Your task to perform on an android device: turn on improve location accuracy Image 0: 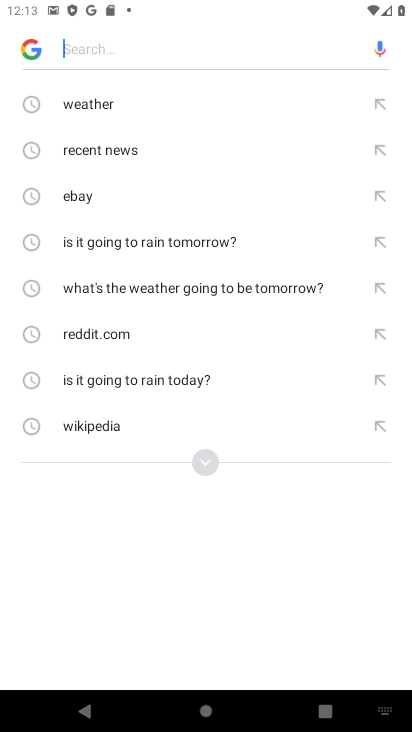
Step 0: press home button
Your task to perform on an android device: turn on improve location accuracy Image 1: 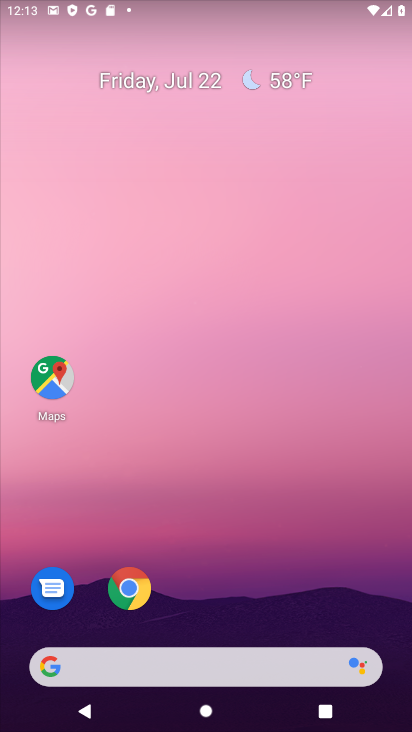
Step 1: drag from (235, 588) to (171, 7)
Your task to perform on an android device: turn on improve location accuracy Image 2: 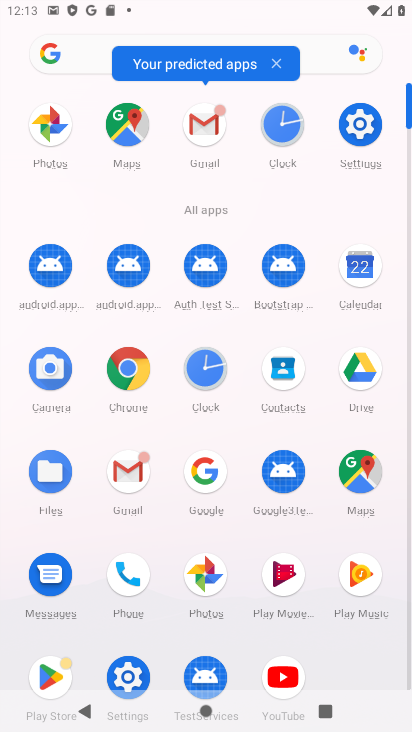
Step 2: click (368, 114)
Your task to perform on an android device: turn on improve location accuracy Image 3: 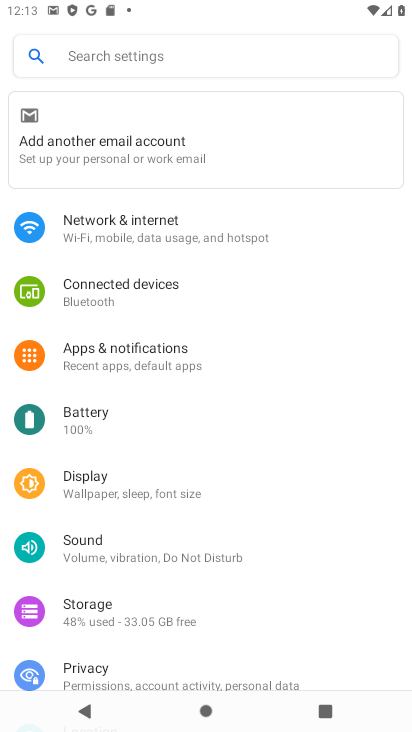
Step 3: drag from (142, 620) to (146, 274)
Your task to perform on an android device: turn on improve location accuracy Image 4: 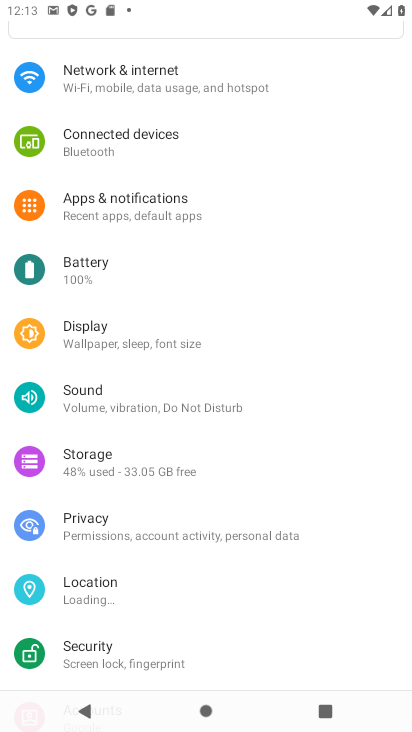
Step 4: click (146, 592)
Your task to perform on an android device: turn on improve location accuracy Image 5: 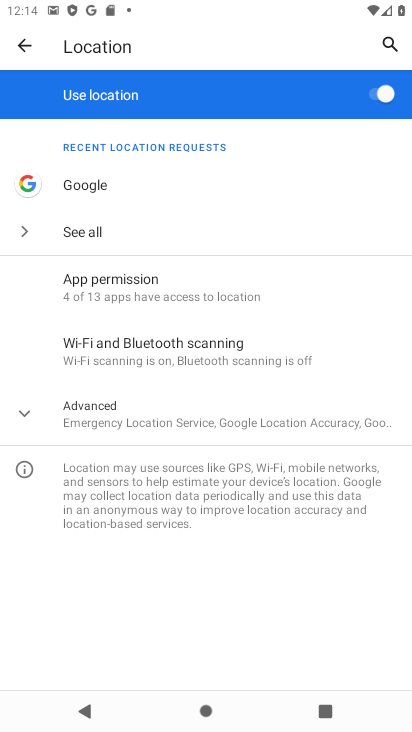
Step 5: click (205, 417)
Your task to perform on an android device: turn on improve location accuracy Image 6: 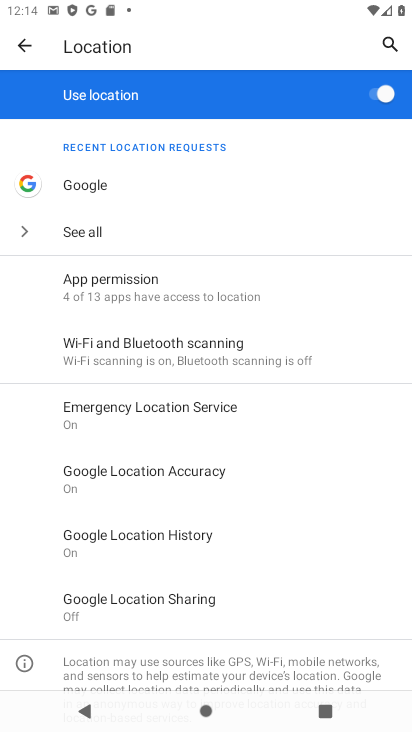
Step 6: click (173, 475)
Your task to perform on an android device: turn on improve location accuracy Image 7: 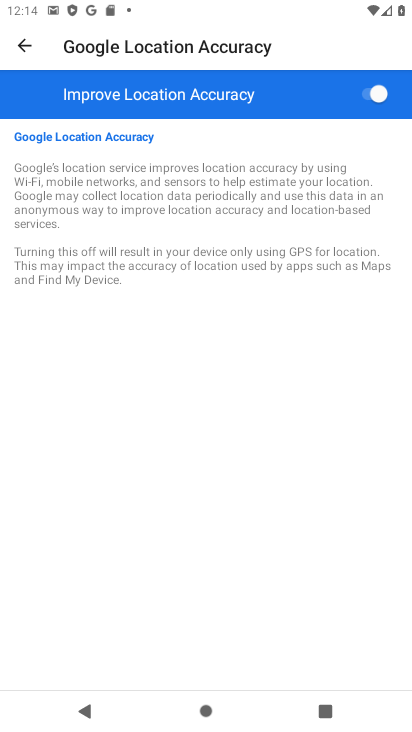
Step 7: task complete